Your task to perform on an android device: turn off improve location accuracy Image 0: 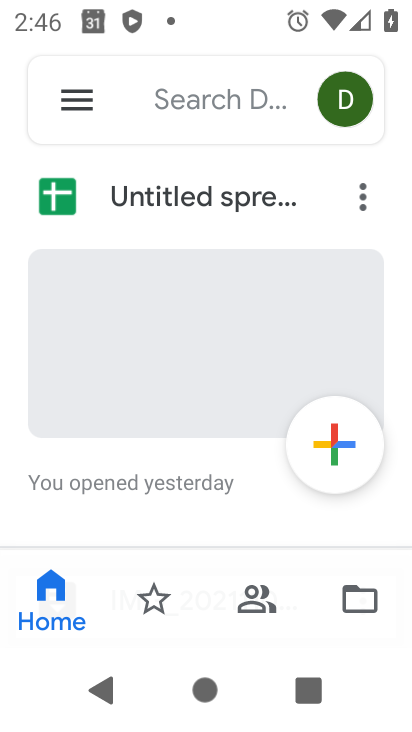
Step 0: press home button
Your task to perform on an android device: turn off improve location accuracy Image 1: 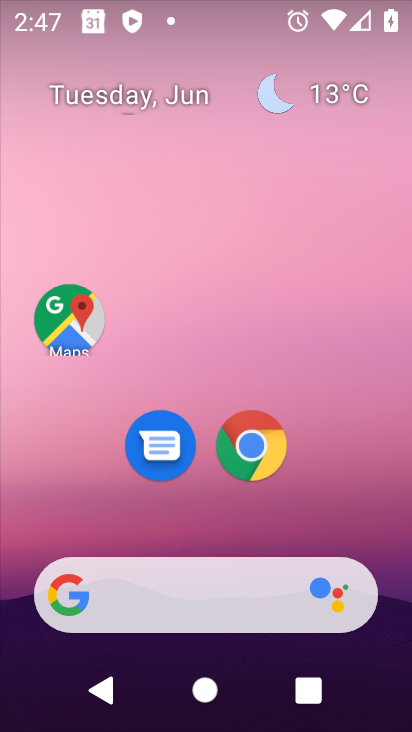
Step 1: drag from (398, 613) to (338, 41)
Your task to perform on an android device: turn off improve location accuracy Image 2: 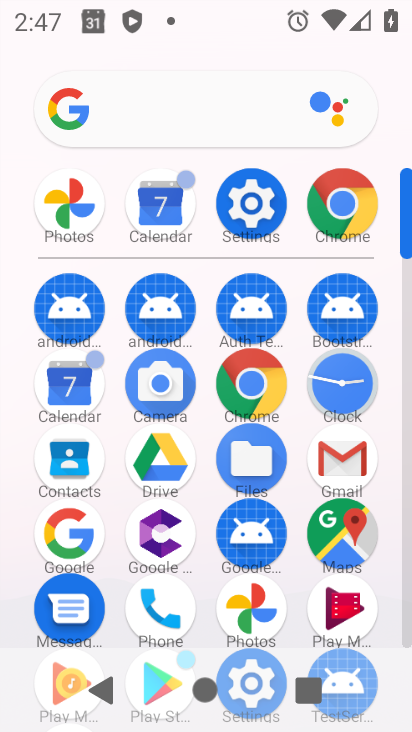
Step 2: click (405, 623)
Your task to perform on an android device: turn off improve location accuracy Image 3: 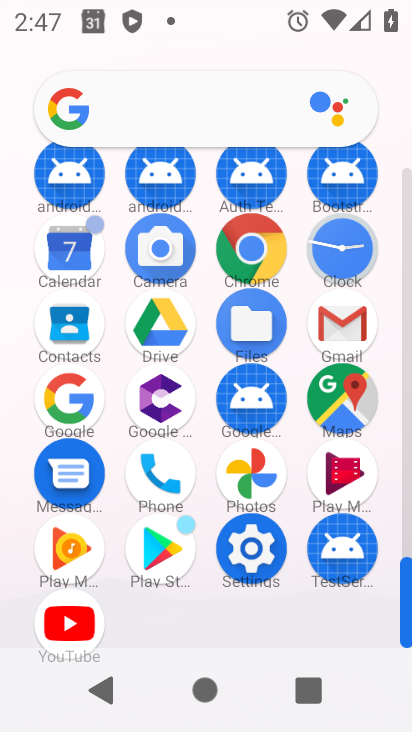
Step 3: click (250, 547)
Your task to perform on an android device: turn off improve location accuracy Image 4: 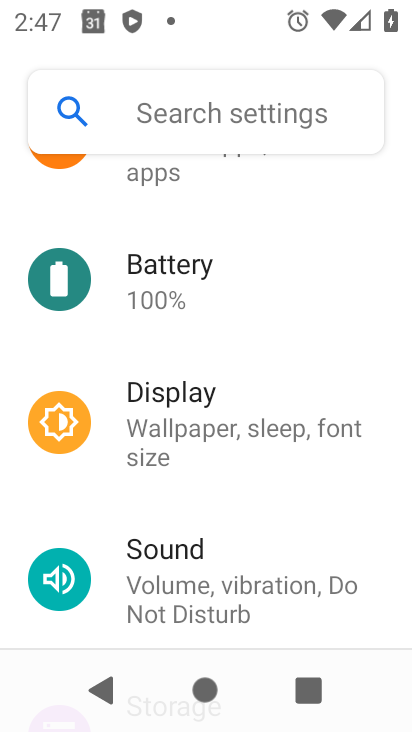
Step 4: drag from (363, 542) to (324, 199)
Your task to perform on an android device: turn off improve location accuracy Image 5: 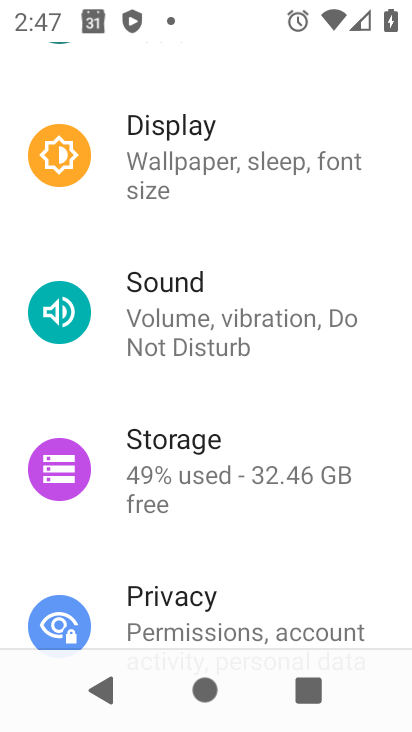
Step 5: drag from (348, 600) to (343, 198)
Your task to perform on an android device: turn off improve location accuracy Image 6: 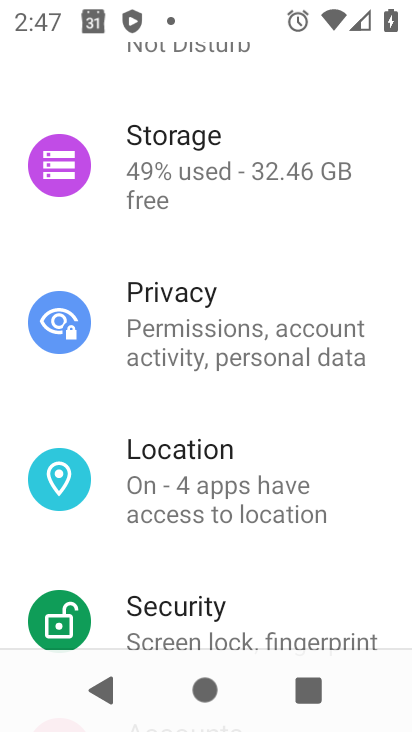
Step 6: click (176, 475)
Your task to perform on an android device: turn off improve location accuracy Image 7: 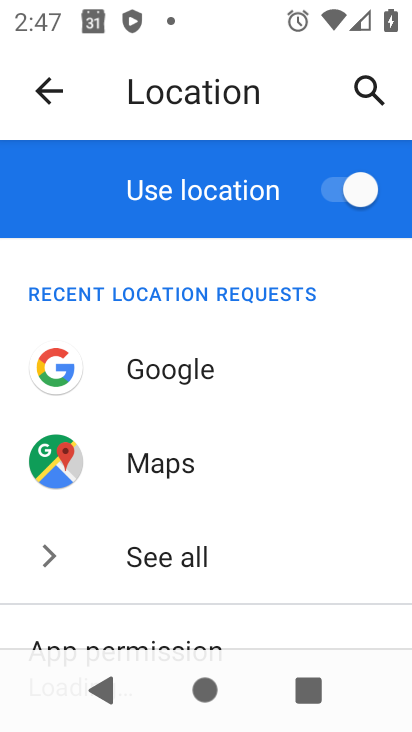
Step 7: drag from (286, 625) to (289, 226)
Your task to perform on an android device: turn off improve location accuracy Image 8: 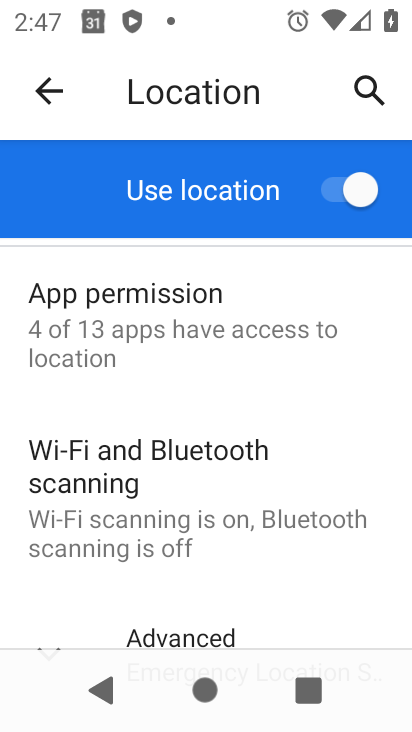
Step 8: drag from (203, 633) to (232, 222)
Your task to perform on an android device: turn off improve location accuracy Image 9: 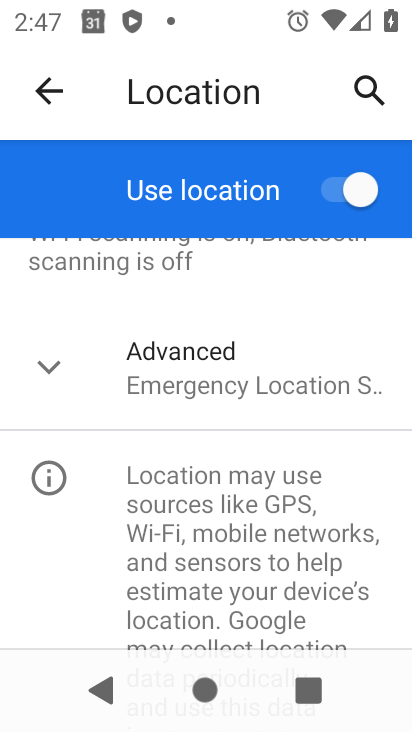
Step 9: click (54, 369)
Your task to perform on an android device: turn off improve location accuracy Image 10: 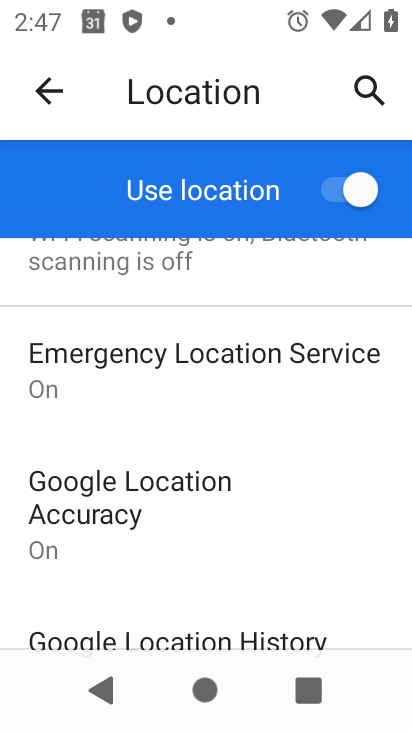
Step 10: click (88, 503)
Your task to perform on an android device: turn off improve location accuracy Image 11: 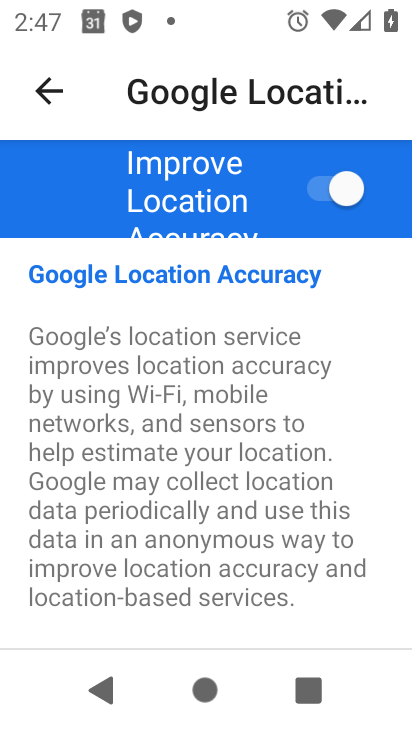
Step 11: click (319, 191)
Your task to perform on an android device: turn off improve location accuracy Image 12: 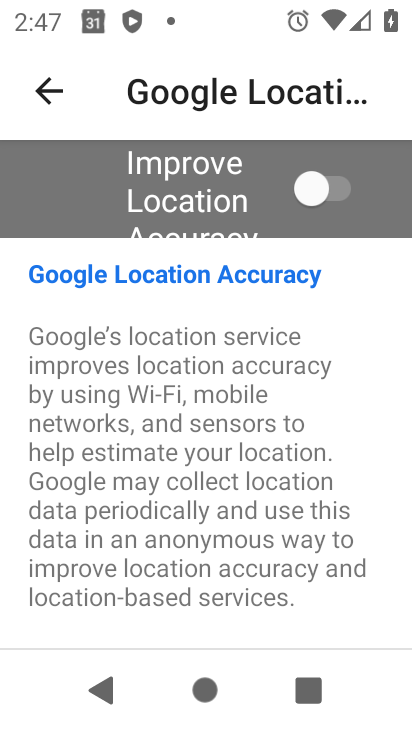
Step 12: task complete